Your task to perform on an android device: delete the emails in spam in the gmail app Image 0: 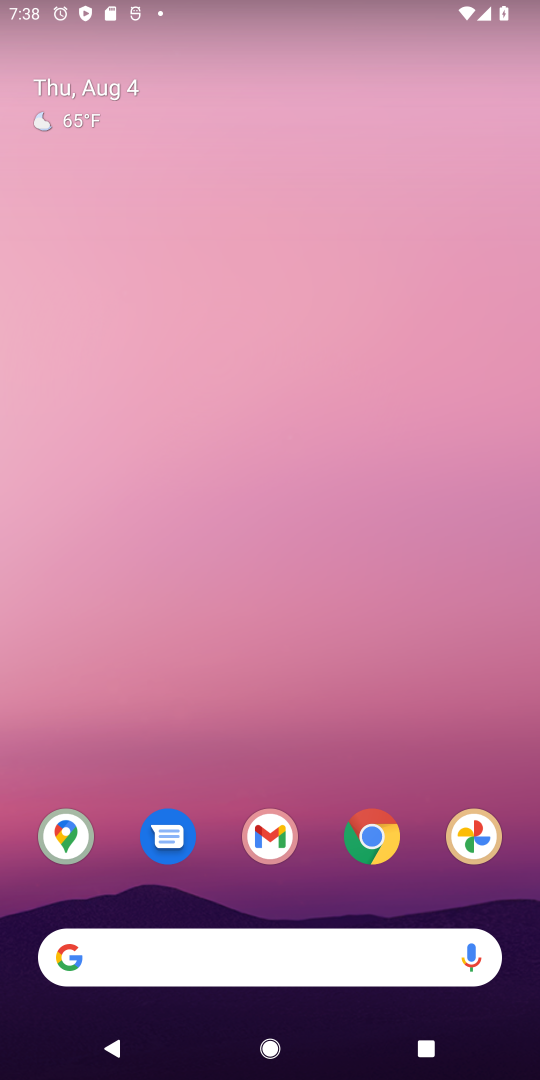
Step 0: click (274, 833)
Your task to perform on an android device: delete the emails in spam in the gmail app Image 1: 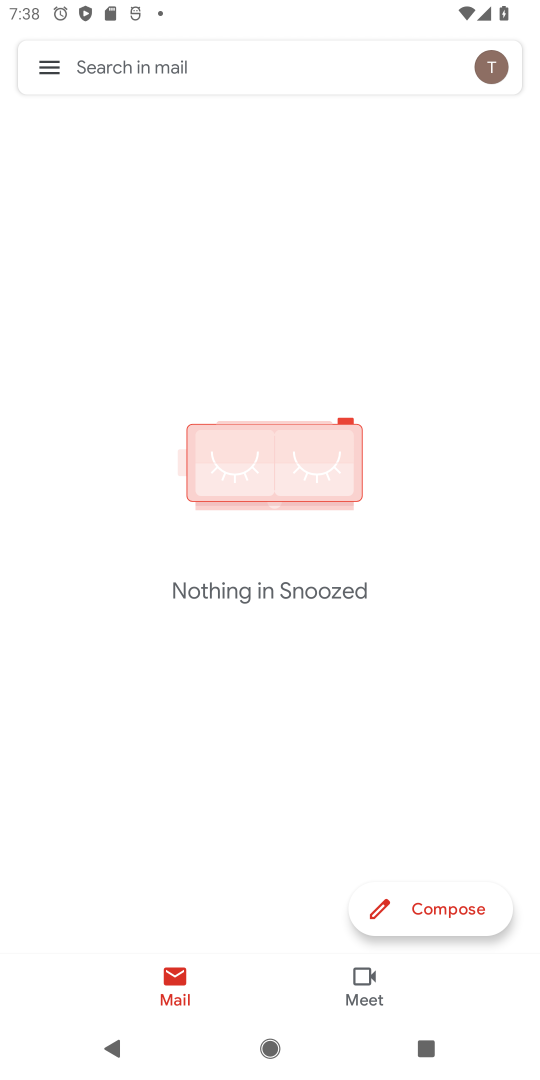
Step 1: click (50, 57)
Your task to perform on an android device: delete the emails in spam in the gmail app Image 2: 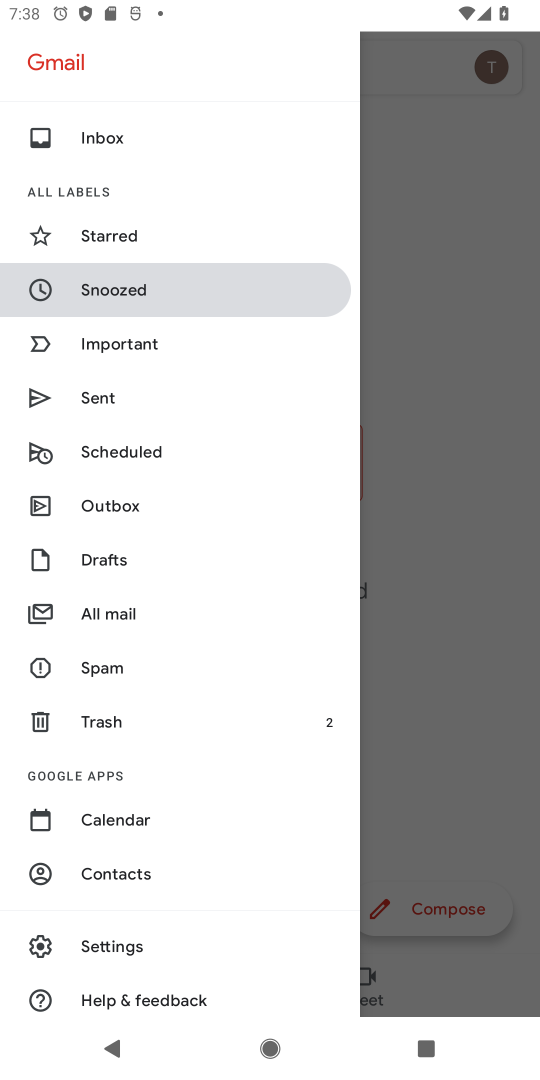
Step 2: click (105, 659)
Your task to perform on an android device: delete the emails in spam in the gmail app Image 3: 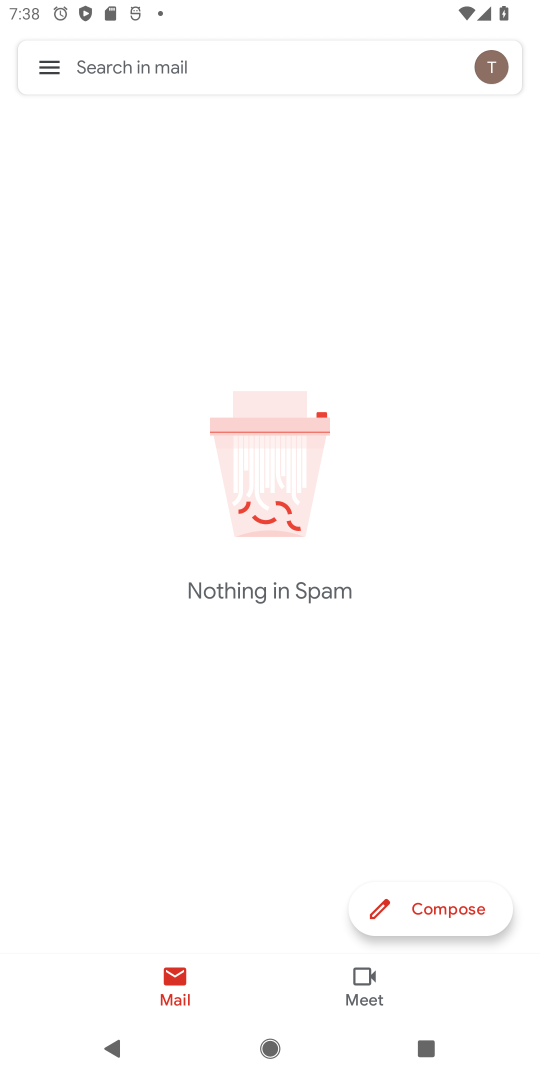
Step 3: task complete